Your task to perform on an android device: turn on location history Image 0: 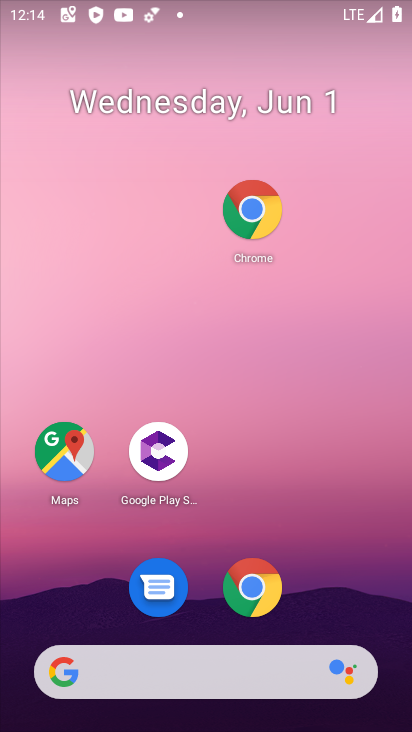
Step 0: drag from (374, 592) to (322, 162)
Your task to perform on an android device: turn on location history Image 1: 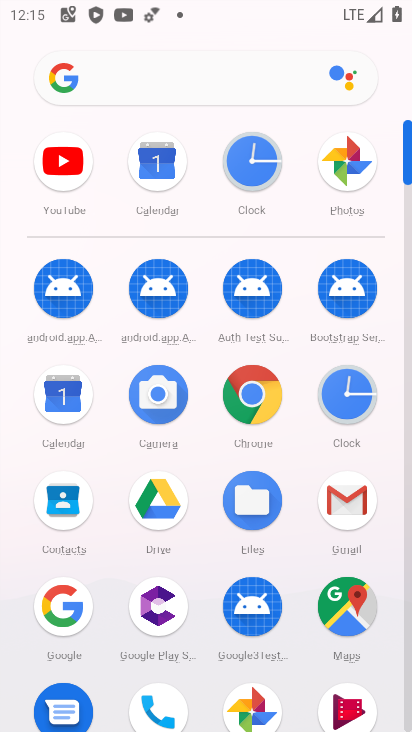
Step 1: drag from (117, 531) to (123, 330)
Your task to perform on an android device: turn on location history Image 2: 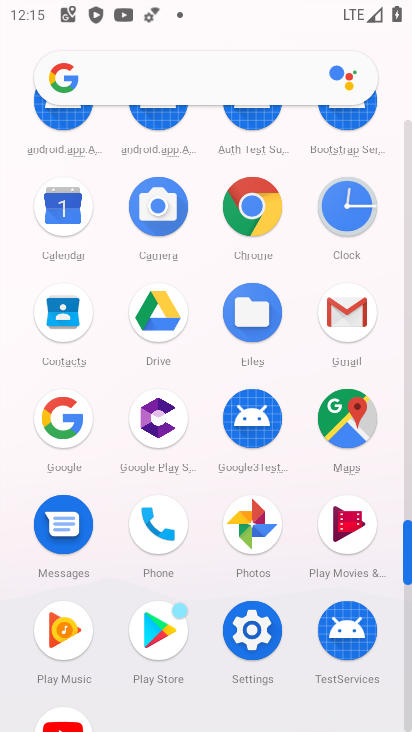
Step 2: click (249, 637)
Your task to perform on an android device: turn on location history Image 3: 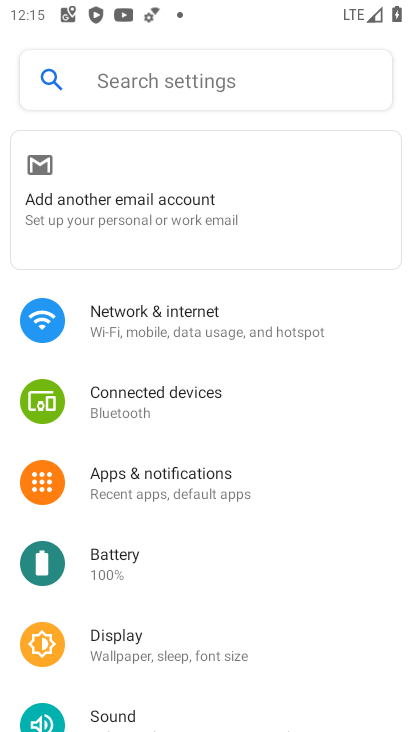
Step 3: drag from (258, 595) to (227, 318)
Your task to perform on an android device: turn on location history Image 4: 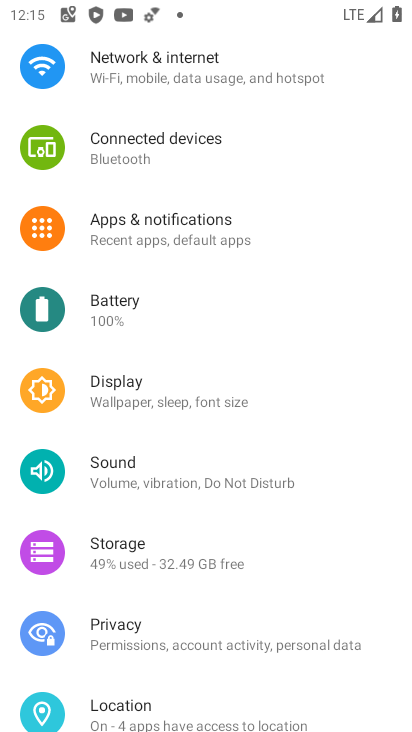
Step 4: click (138, 710)
Your task to perform on an android device: turn on location history Image 5: 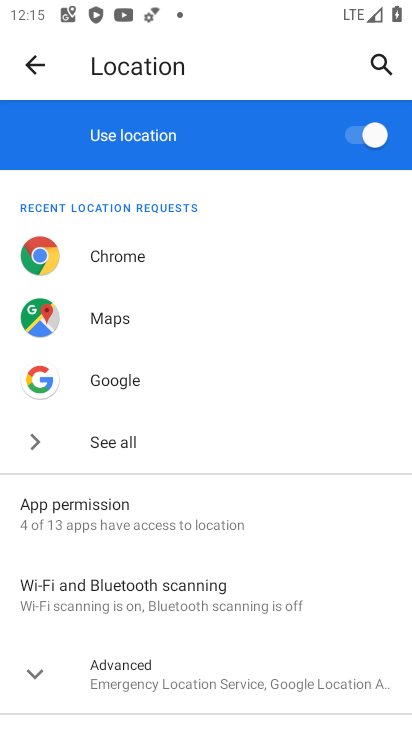
Step 5: click (224, 662)
Your task to perform on an android device: turn on location history Image 6: 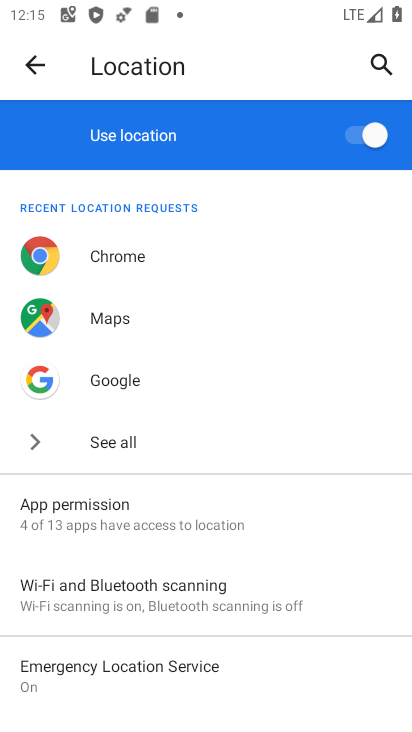
Step 6: drag from (224, 662) to (197, 481)
Your task to perform on an android device: turn on location history Image 7: 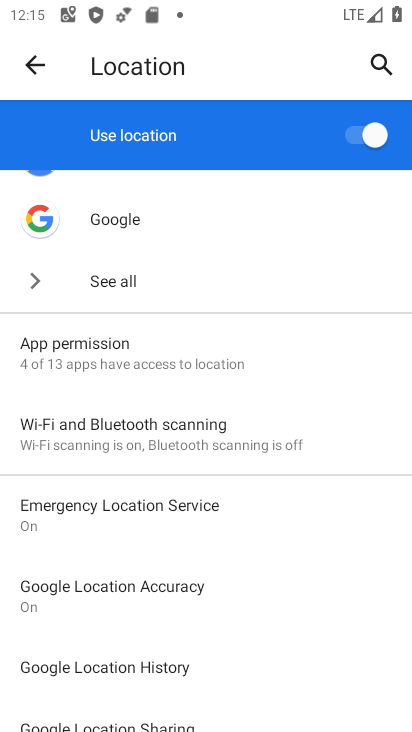
Step 7: click (185, 669)
Your task to perform on an android device: turn on location history Image 8: 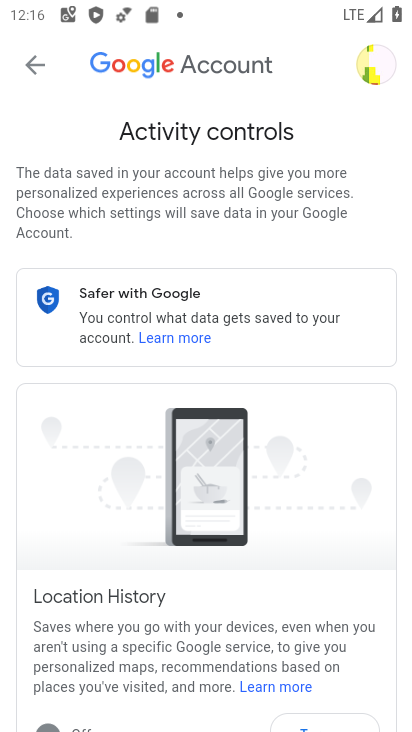
Step 8: drag from (308, 450) to (283, 157)
Your task to perform on an android device: turn on location history Image 9: 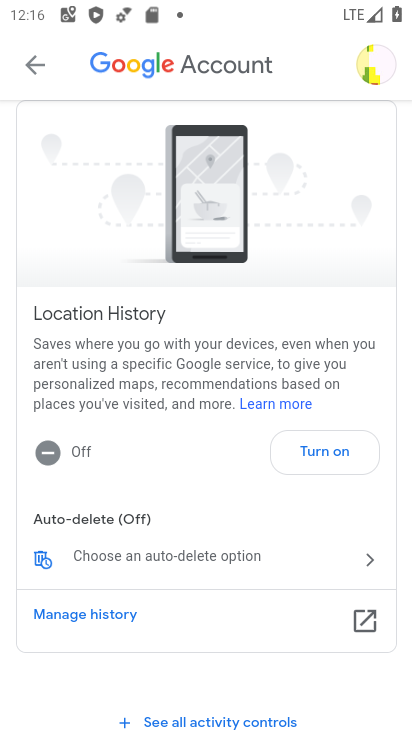
Step 9: click (329, 447)
Your task to perform on an android device: turn on location history Image 10: 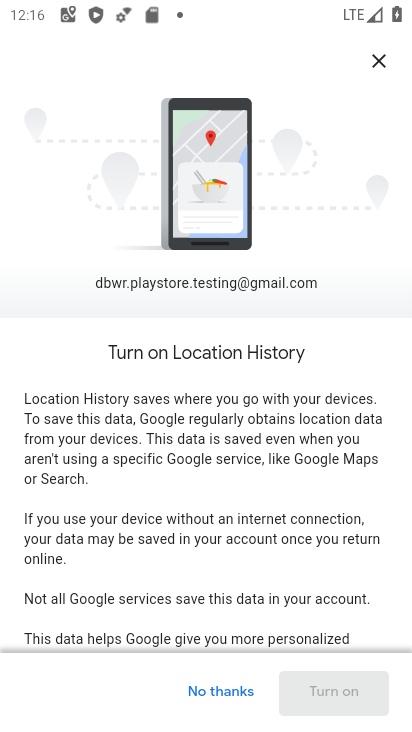
Step 10: drag from (333, 588) to (329, 89)
Your task to perform on an android device: turn on location history Image 11: 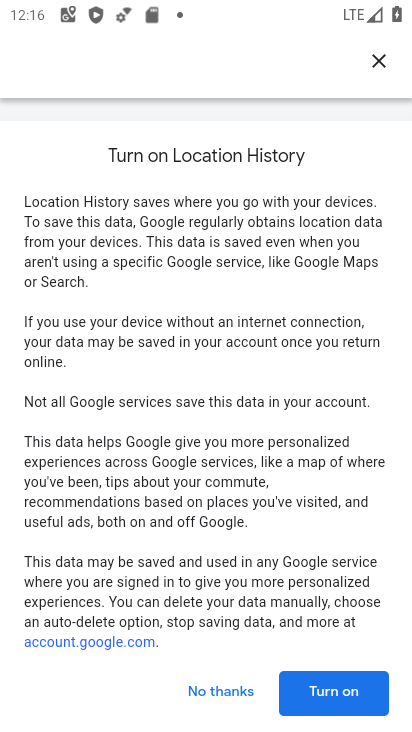
Step 11: click (330, 693)
Your task to perform on an android device: turn on location history Image 12: 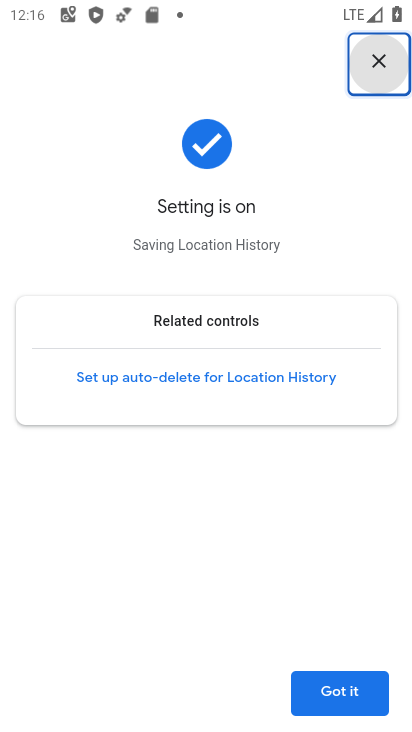
Step 12: task complete